Your task to perform on an android device: see tabs open on other devices in the chrome app Image 0: 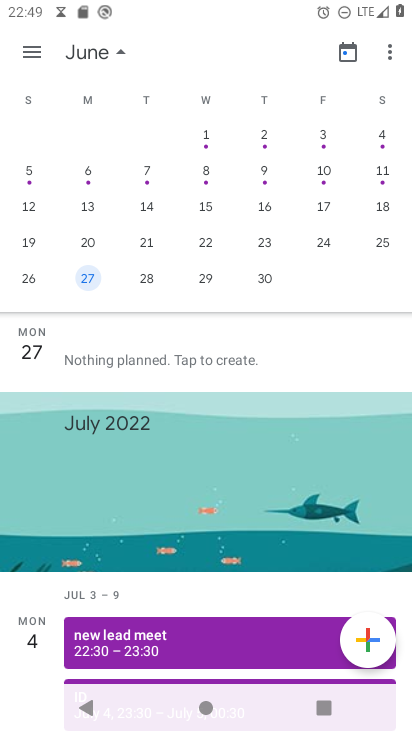
Step 0: press home button
Your task to perform on an android device: see tabs open on other devices in the chrome app Image 1: 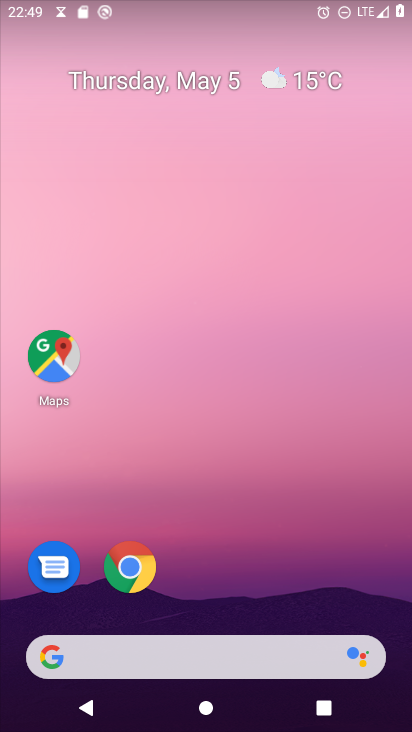
Step 1: click (131, 566)
Your task to perform on an android device: see tabs open on other devices in the chrome app Image 2: 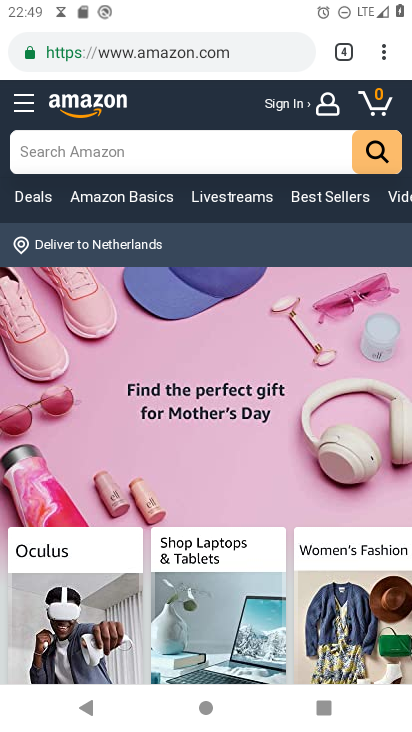
Step 2: task complete